Your task to perform on an android device: Open Chrome and go to settings Image 0: 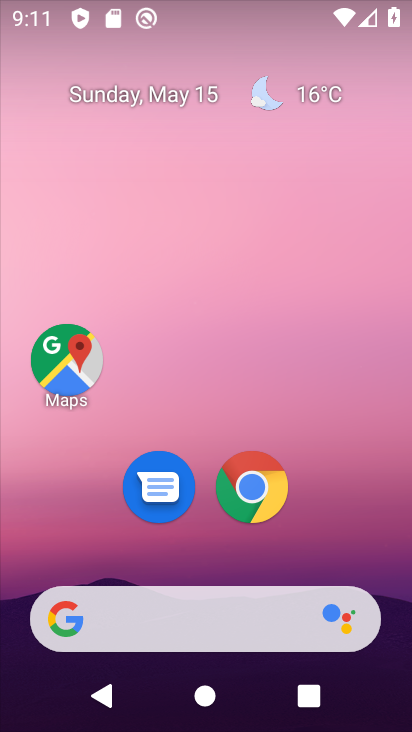
Step 0: drag from (324, 537) to (352, 154)
Your task to perform on an android device: Open Chrome and go to settings Image 1: 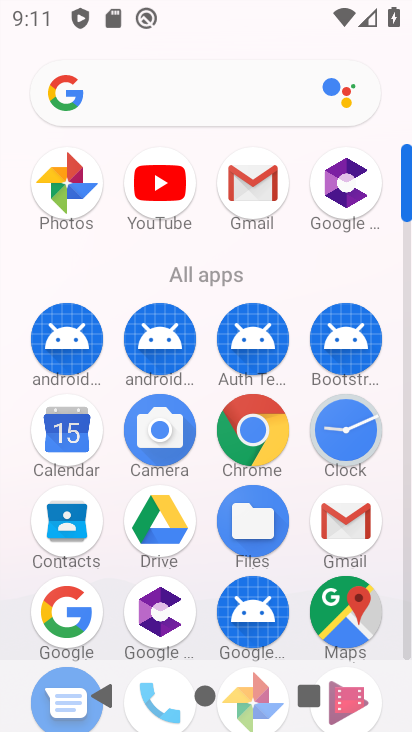
Step 1: click (255, 430)
Your task to perform on an android device: Open Chrome and go to settings Image 2: 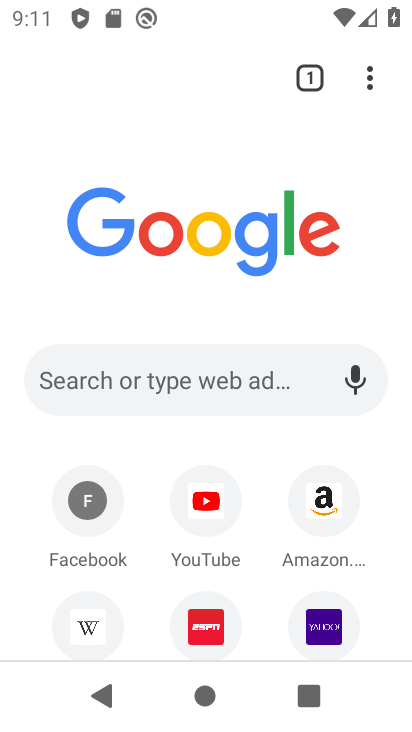
Step 2: task complete